Your task to perform on an android device: Open settings on Google Maps Image 0: 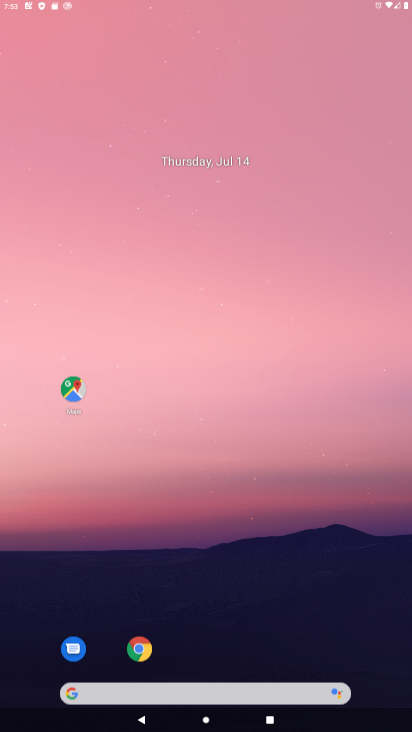
Step 0: press home button
Your task to perform on an android device: Open settings on Google Maps Image 1: 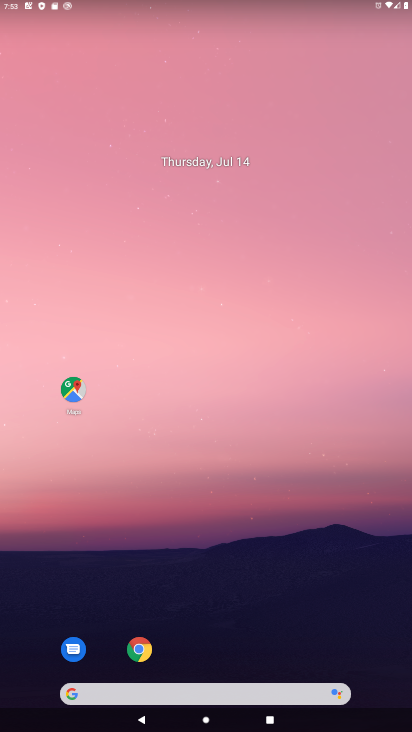
Step 1: click (69, 385)
Your task to perform on an android device: Open settings on Google Maps Image 2: 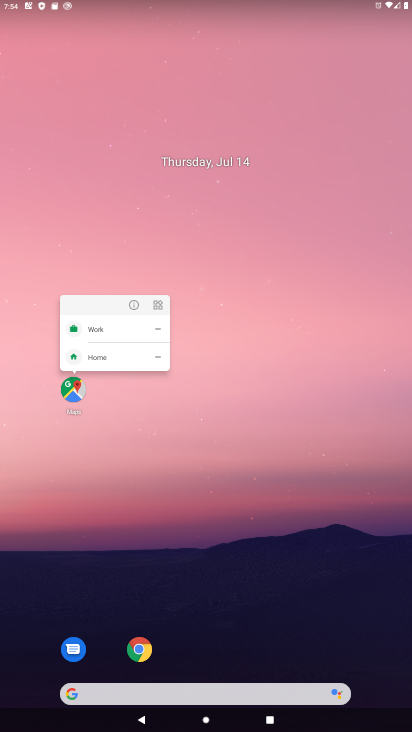
Step 2: click (70, 387)
Your task to perform on an android device: Open settings on Google Maps Image 3: 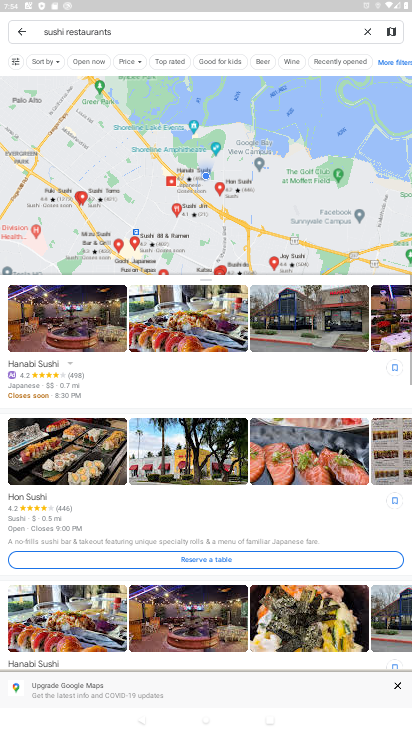
Step 3: click (22, 33)
Your task to perform on an android device: Open settings on Google Maps Image 4: 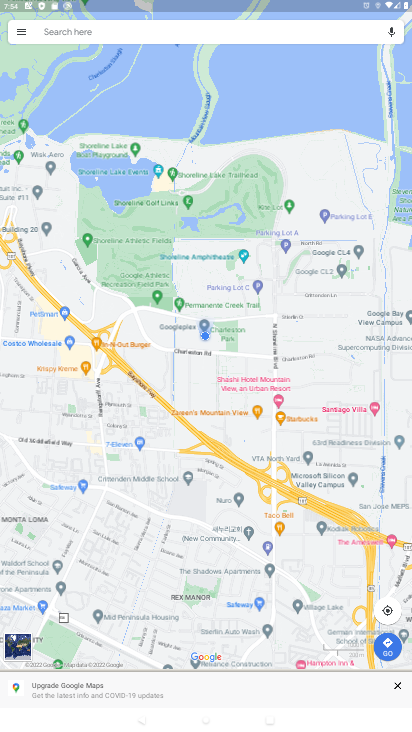
Step 4: click (22, 30)
Your task to perform on an android device: Open settings on Google Maps Image 5: 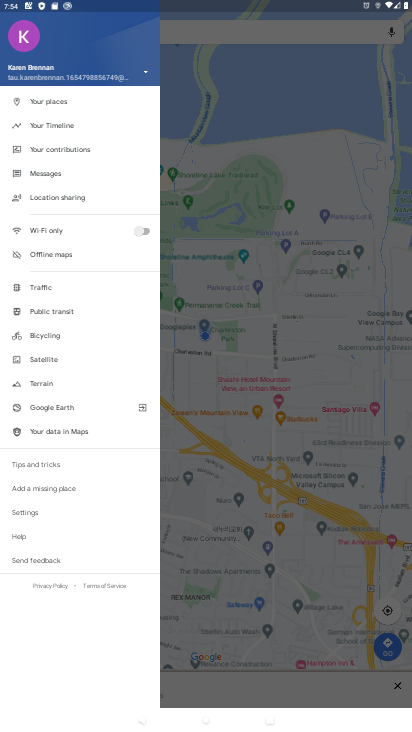
Step 5: click (36, 515)
Your task to perform on an android device: Open settings on Google Maps Image 6: 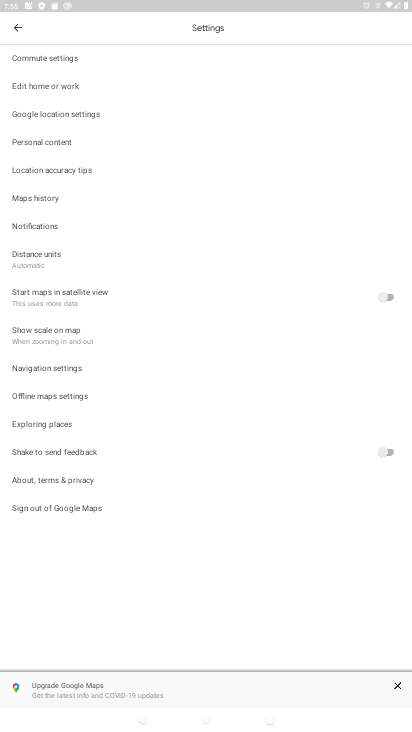
Step 6: task complete